Your task to perform on an android device: check storage Image 0: 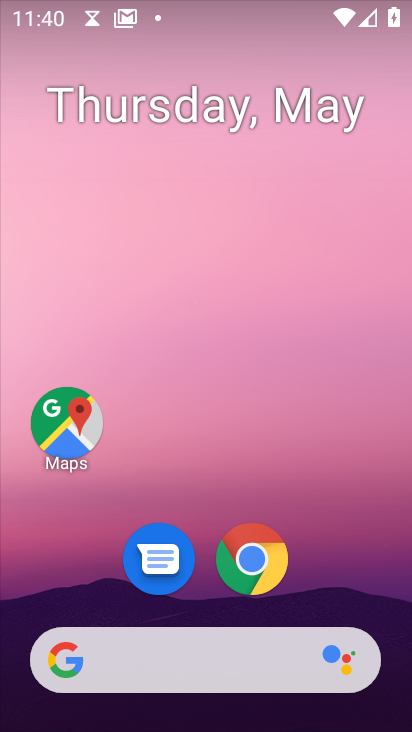
Step 0: drag from (205, 725) to (203, 218)
Your task to perform on an android device: check storage Image 1: 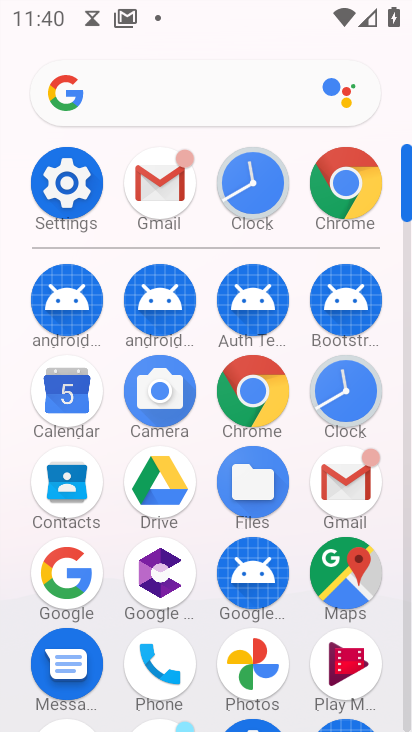
Step 1: click (60, 181)
Your task to perform on an android device: check storage Image 2: 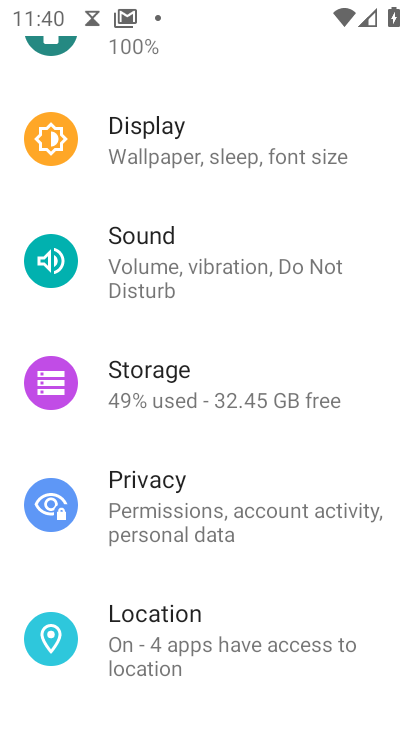
Step 2: click (156, 382)
Your task to perform on an android device: check storage Image 3: 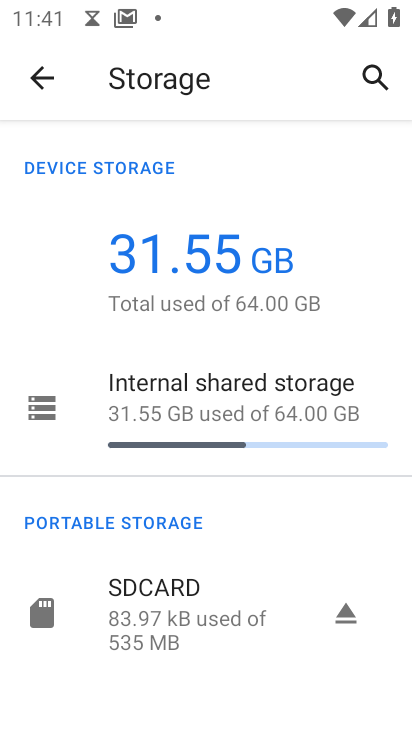
Step 3: task complete